Your task to perform on an android device: Clear the shopping cart on amazon. Search for apple airpods pro on amazon, select the first entry, and add it to the cart. Image 0: 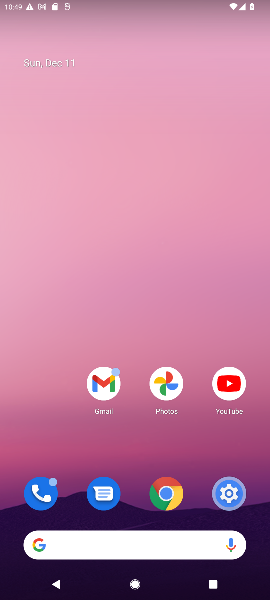
Step 0: click (191, 537)
Your task to perform on an android device: Clear the shopping cart on amazon. Search for apple airpods pro on amazon, select the first entry, and add it to the cart. Image 1: 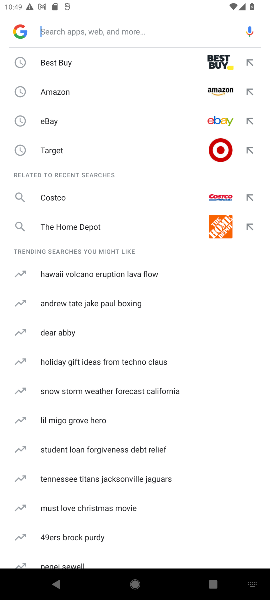
Step 1: type "amazon'"
Your task to perform on an android device: Clear the shopping cart on amazon. Search for apple airpods pro on amazon, select the first entry, and add it to the cart. Image 2: 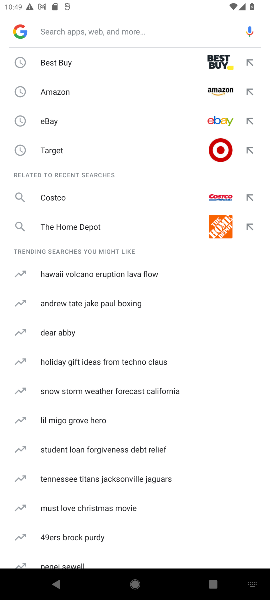
Step 2: click (75, 97)
Your task to perform on an android device: Clear the shopping cart on amazon. Search for apple airpods pro on amazon, select the first entry, and add it to the cart. Image 3: 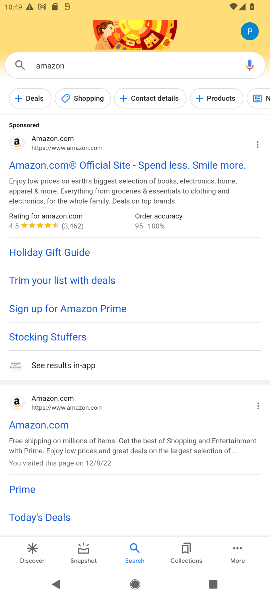
Step 3: click (67, 158)
Your task to perform on an android device: Clear the shopping cart on amazon. Search for apple airpods pro on amazon, select the first entry, and add it to the cart. Image 4: 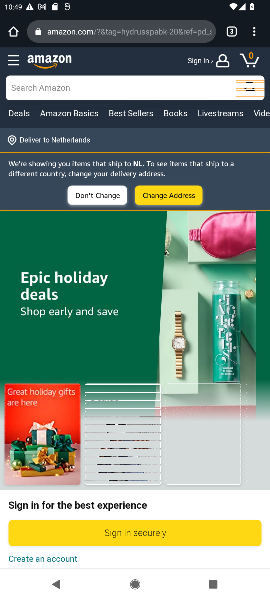
Step 4: click (153, 92)
Your task to perform on an android device: Clear the shopping cart on amazon. Search for apple airpods pro on amazon, select the first entry, and add it to the cart. Image 5: 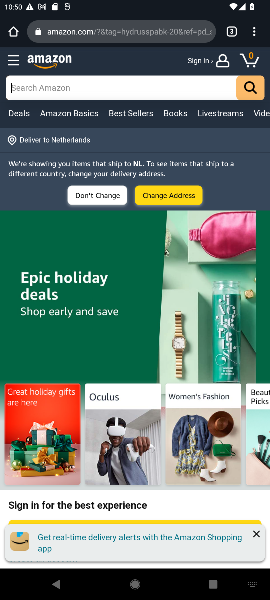
Step 5: type "apple airpod"
Your task to perform on an android device: Clear the shopping cart on amazon. Search for apple airpods pro on amazon, select the first entry, and add it to the cart. Image 6: 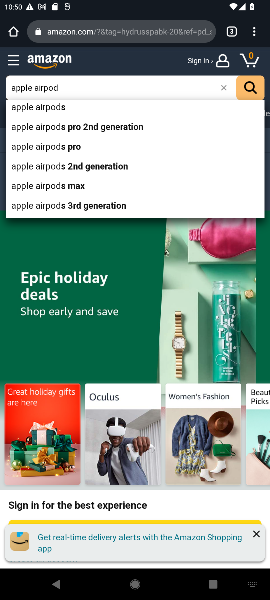
Step 6: click (253, 90)
Your task to perform on an android device: Clear the shopping cart on amazon. Search for apple airpods pro on amazon, select the first entry, and add it to the cart. Image 7: 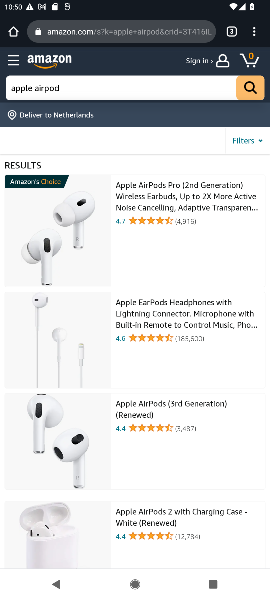
Step 7: click (152, 196)
Your task to perform on an android device: Clear the shopping cart on amazon. Search for apple airpods pro on amazon, select the first entry, and add it to the cart. Image 8: 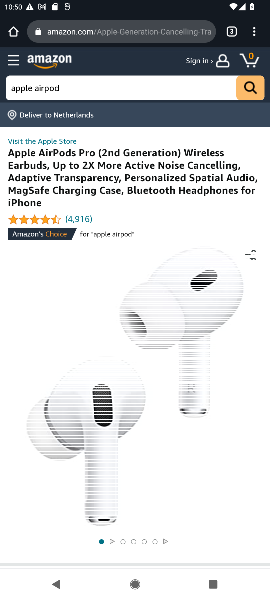
Step 8: drag from (179, 504) to (178, 96)
Your task to perform on an android device: Clear the shopping cart on amazon. Search for apple airpods pro on amazon, select the first entry, and add it to the cart. Image 9: 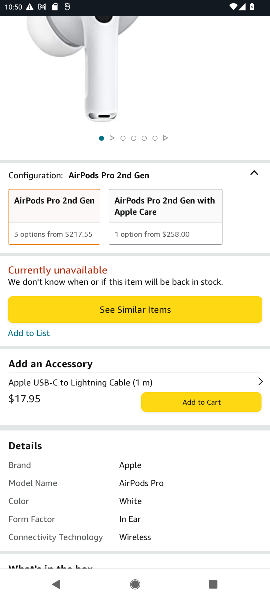
Step 9: click (214, 398)
Your task to perform on an android device: Clear the shopping cart on amazon. Search for apple airpods pro on amazon, select the first entry, and add it to the cart. Image 10: 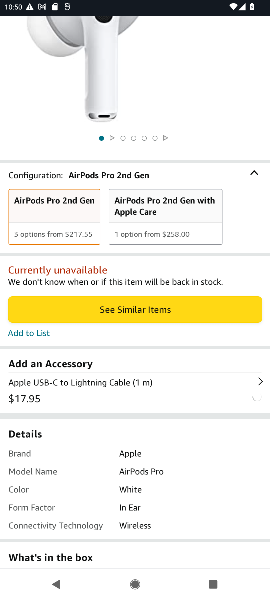
Step 10: task complete